Your task to perform on an android device: Go to CNN.com Image 0: 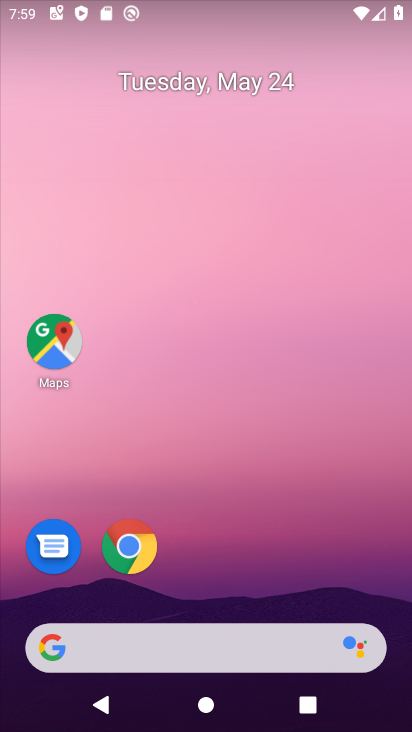
Step 0: click (231, 653)
Your task to perform on an android device: Go to CNN.com Image 1: 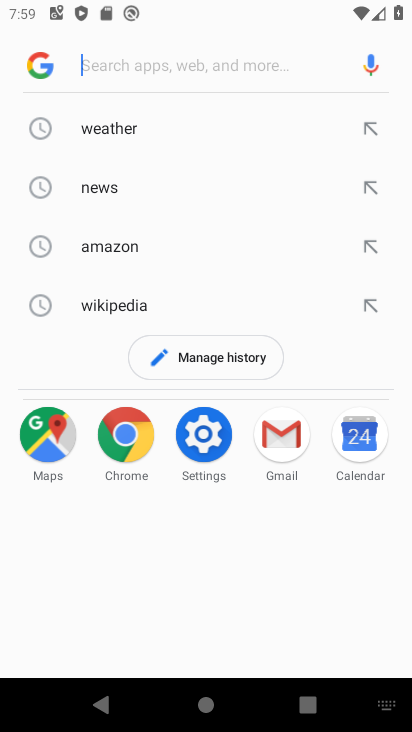
Step 1: type "cnn.com"
Your task to perform on an android device: Go to CNN.com Image 2: 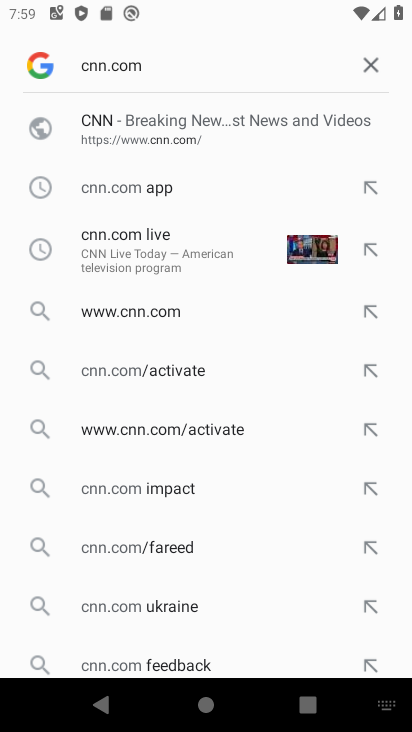
Step 2: click (91, 115)
Your task to perform on an android device: Go to CNN.com Image 3: 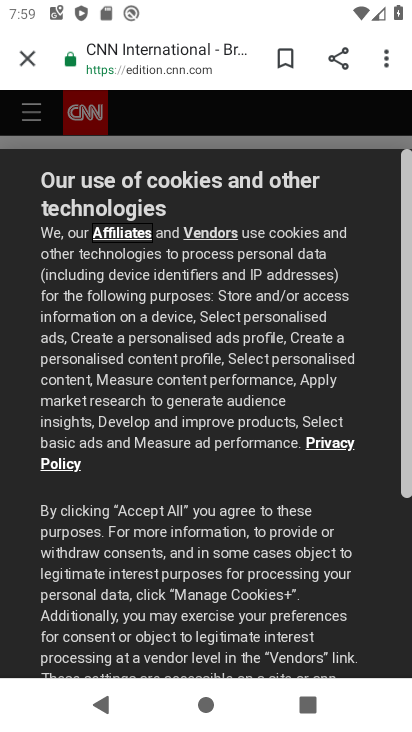
Step 3: task complete